Your task to perform on an android device: clear history in the chrome app Image 0: 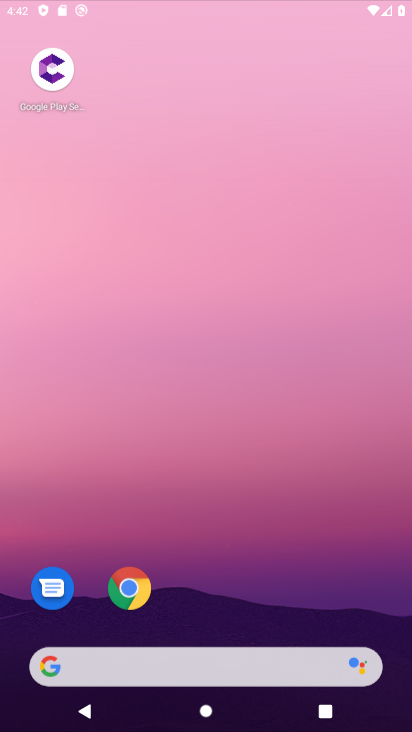
Step 0: click (138, 592)
Your task to perform on an android device: clear history in the chrome app Image 1: 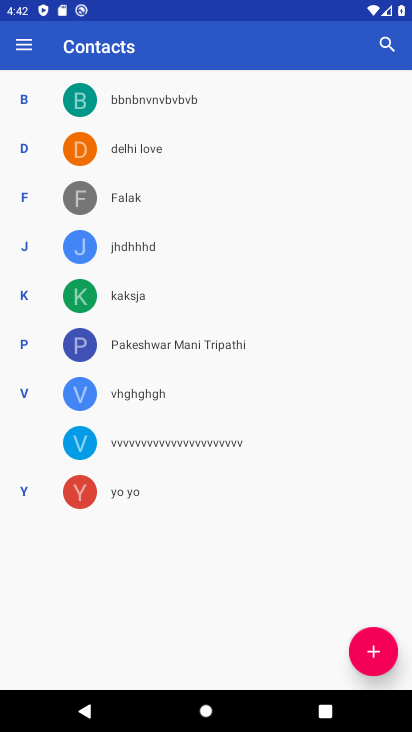
Step 1: press home button
Your task to perform on an android device: clear history in the chrome app Image 2: 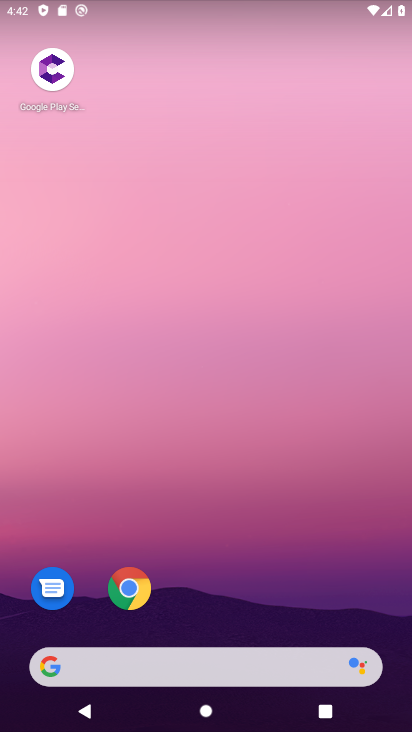
Step 2: click (129, 608)
Your task to perform on an android device: clear history in the chrome app Image 3: 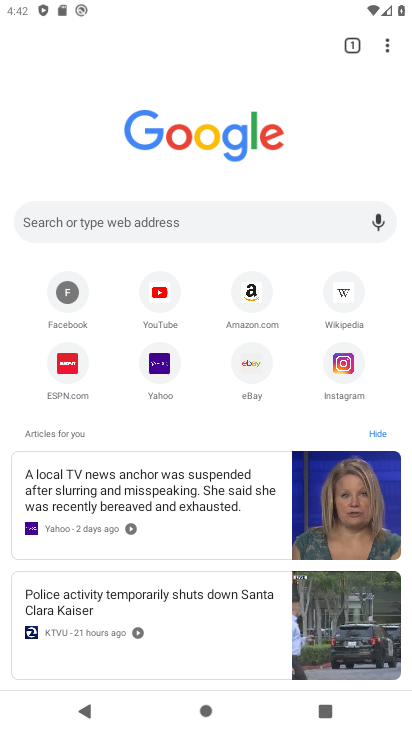
Step 3: click (390, 34)
Your task to perform on an android device: clear history in the chrome app Image 4: 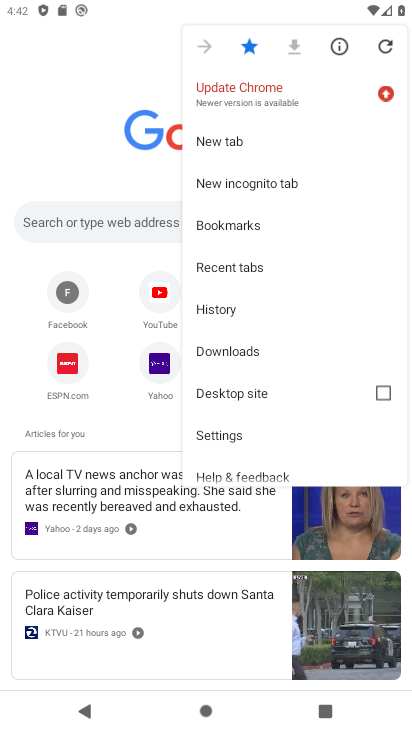
Step 4: click (216, 307)
Your task to perform on an android device: clear history in the chrome app Image 5: 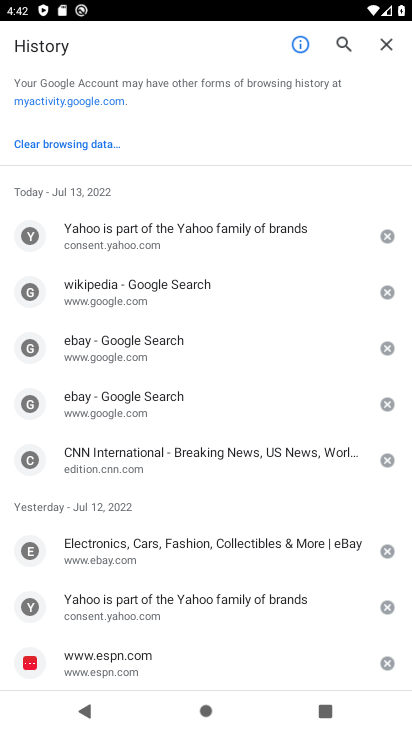
Step 5: click (63, 139)
Your task to perform on an android device: clear history in the chrome app Image 6: 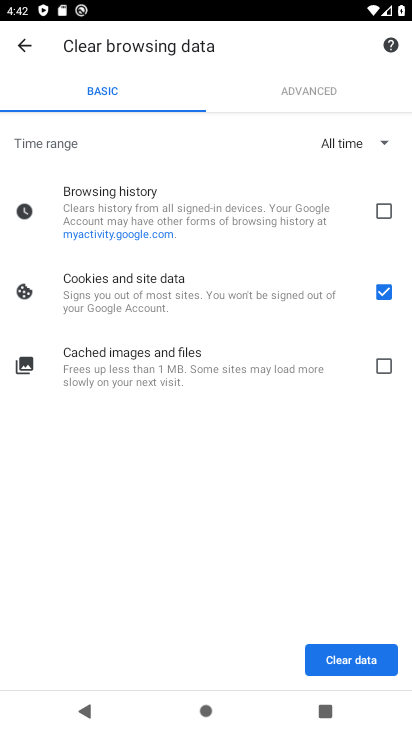
Step 6: click (385, 215)
Your task to perform on an android device: clear history in the chrome app Image 7: 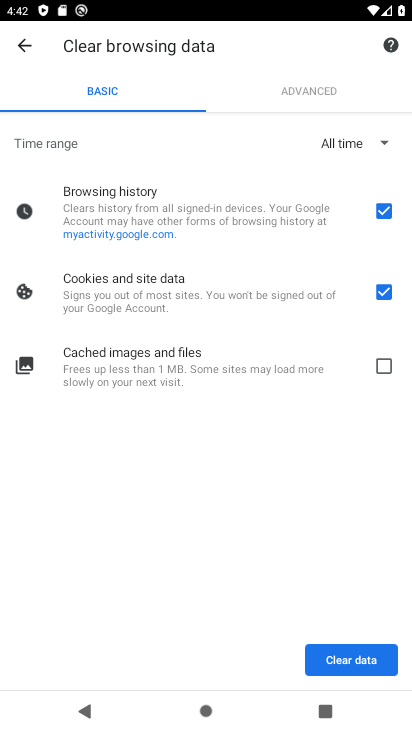
Step 7: click (378, 293)
Your task to perform on an android device: clear history in the chrome app Image 8: 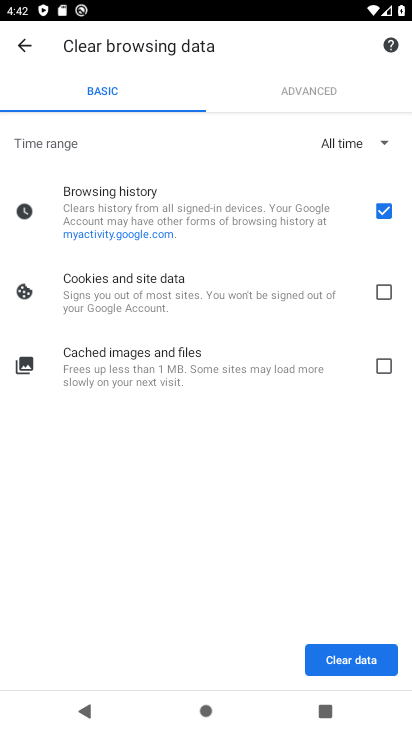
Step 8: click (346, 661)
Your task to perform on an android device: clear history in the chrome app Image 9: 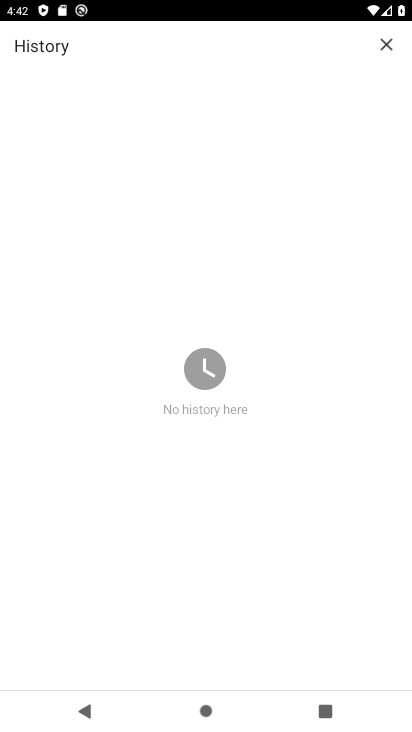
Step 9: task complete